Your task to perform on an android device: open app "Airtel Thanks" (install if not already installed) Image 0: 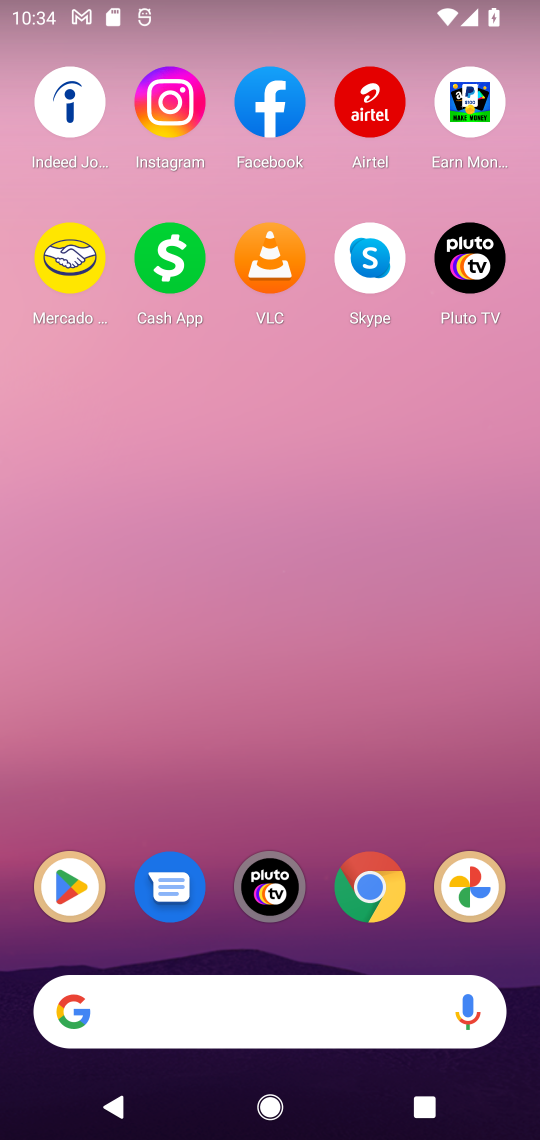
Step 0: click (383, 95)
Your task to perform on an android device: open app "Airtel Thanks" (install if not already installed) Image 1: 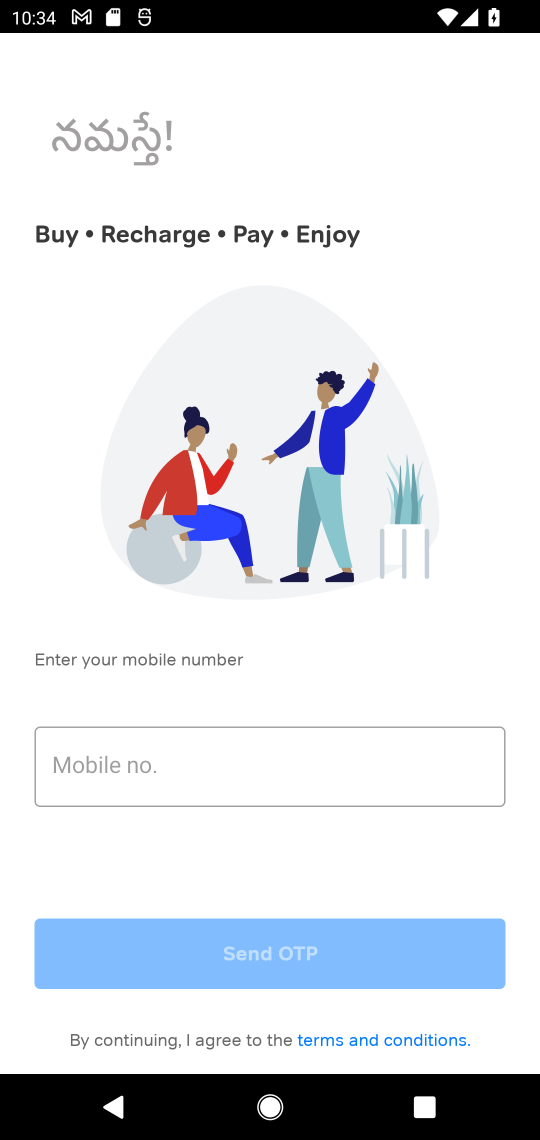
Step 1: task complete